Your task to perform on an android device: Do I have any events tomorrow? Image 0: 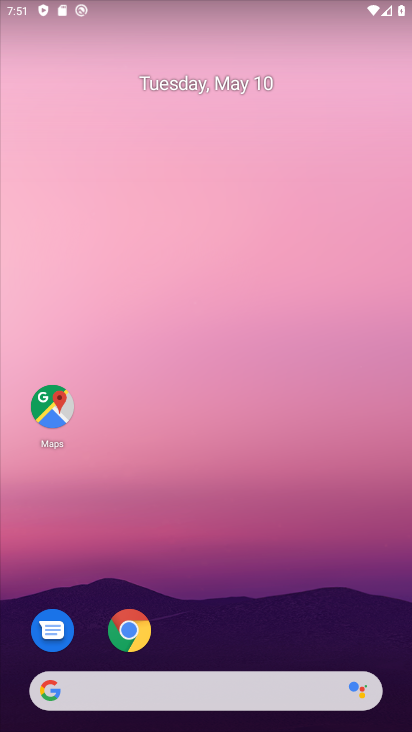
Step 0: drag from (185, 572) to (361, 8)
Your task to perform on an android device: Do I have any events tomorrow? Image 1: 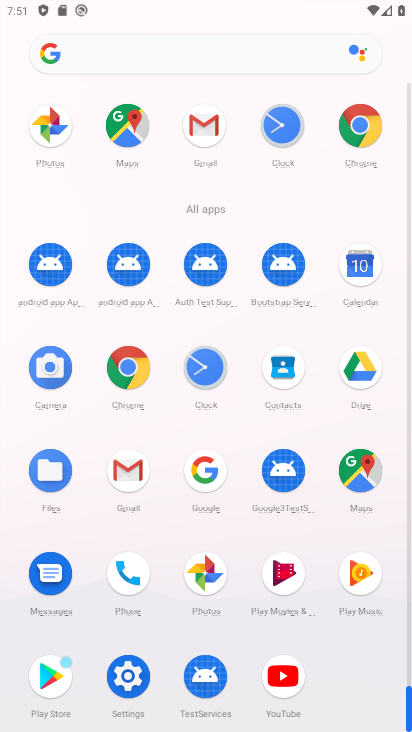
Step 1: drag from (12, 545) to (29, 264)
Your task to perform on an android device: Do I have any events tomorrow? Image 2: 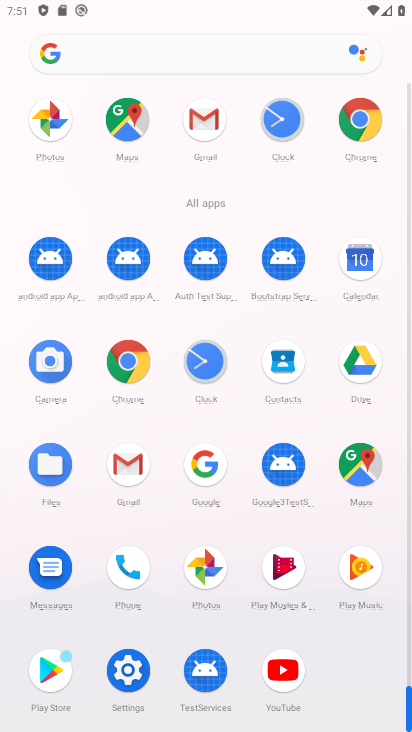
Step 2: click (363, 252)
Your task to perform on an android device: Do I have any events tomorrow? Image 3: 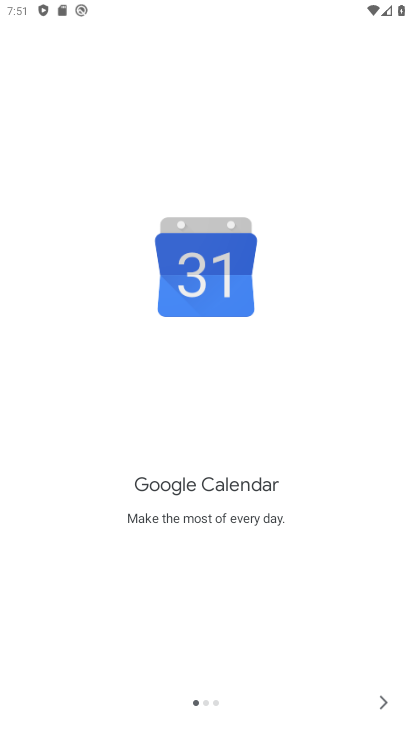
Step 3: click (374, 696)
Your task to perform on an android device: Do I have any events tomorrow? Image 4: 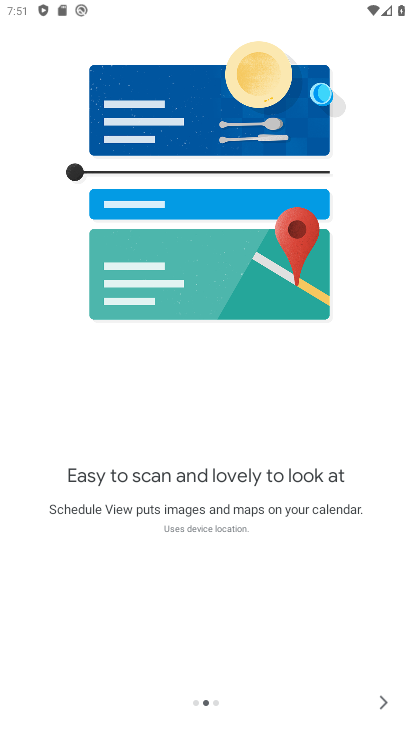
Step 4: click (374, 696)
Your task to perform on an android device: Do I have any events tomorrow? Image 5: 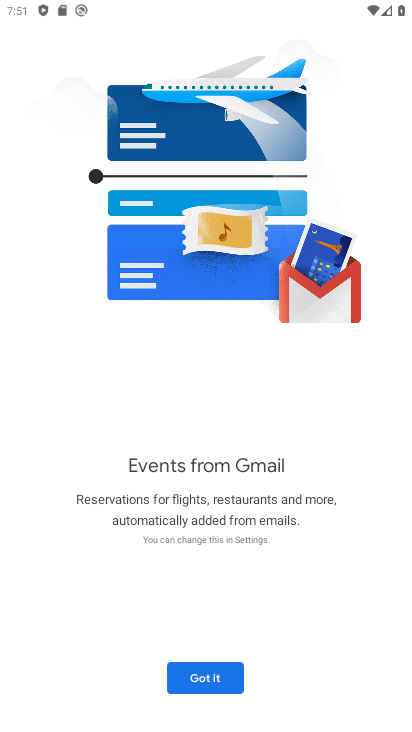
Step 5: click (217, 664)
Your task to perform on an android device: Do I have any events tomorrow? Image 6: 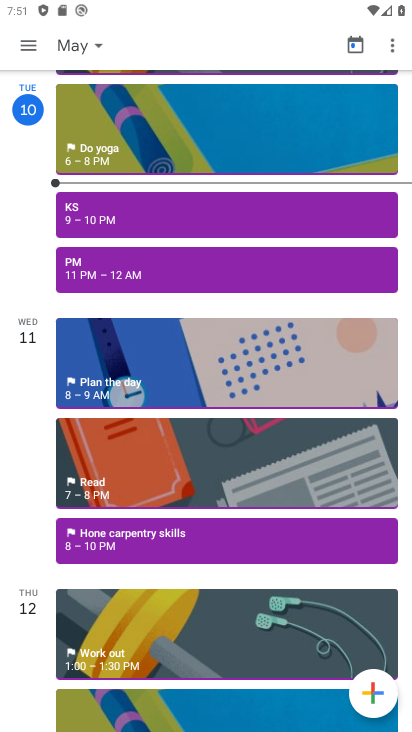
Step 6: click (24, 333)
Your task to perform on an android device: Do I have any events tomorrow? Image 7: 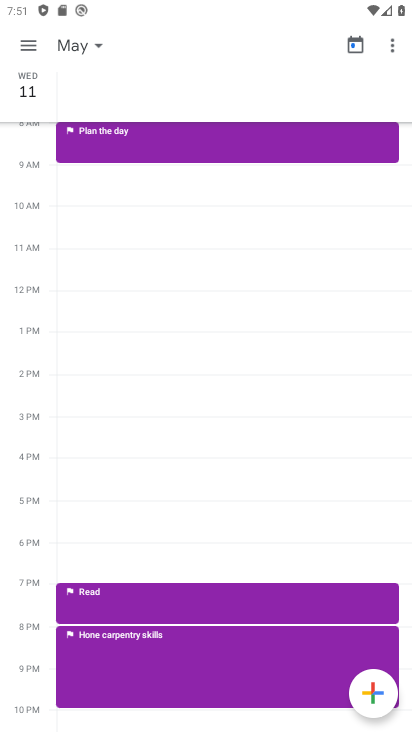
Step 7: task complete